Your task to perform on an android device: Open sound settings Image 0: 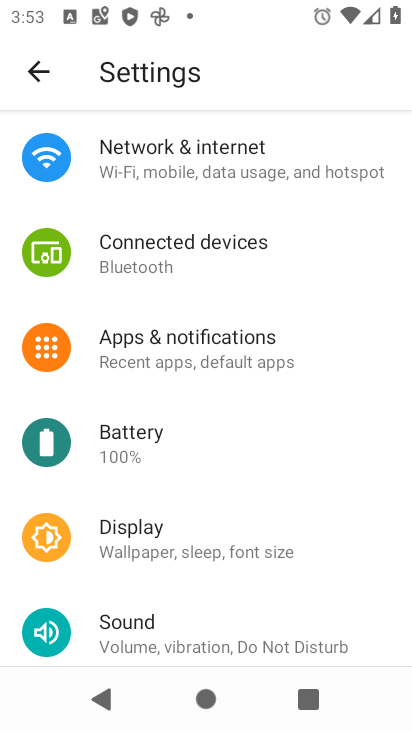
Step 0: click (172, 621)
Your task to perform on an android device: Open sound settings Image 1: 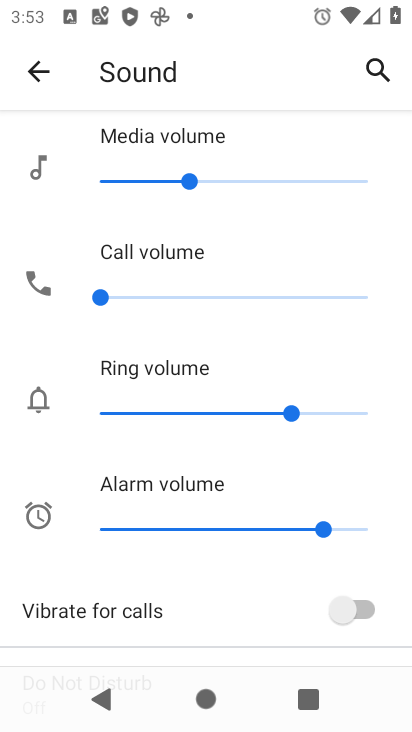
Step 1: task complete